Your task to perform on an android device: What's the news this week? Image 0: 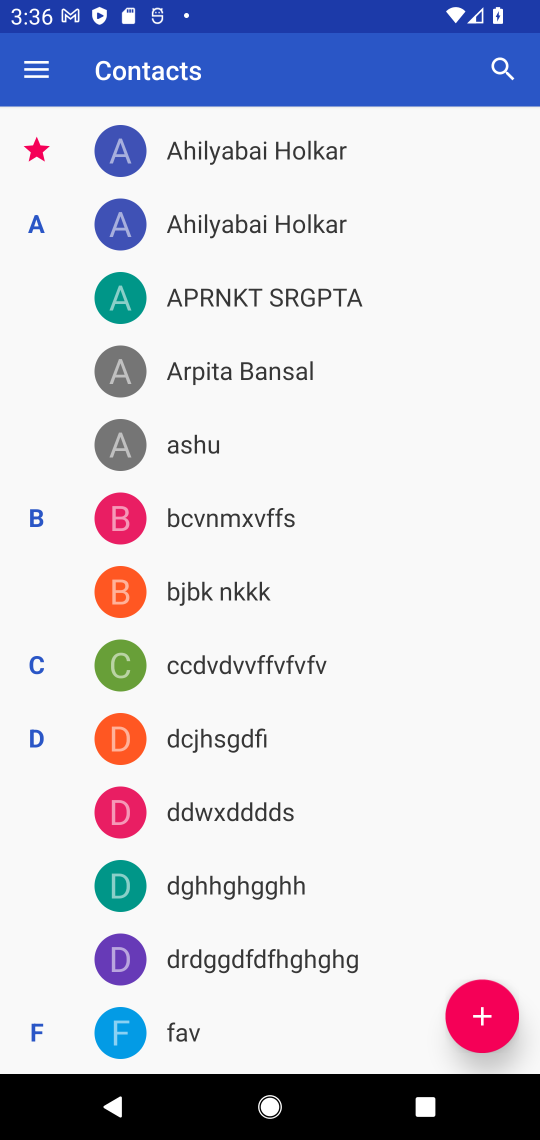
Step 0: press home button
Your task to perform on an android device: What's the news this week? Image 1: 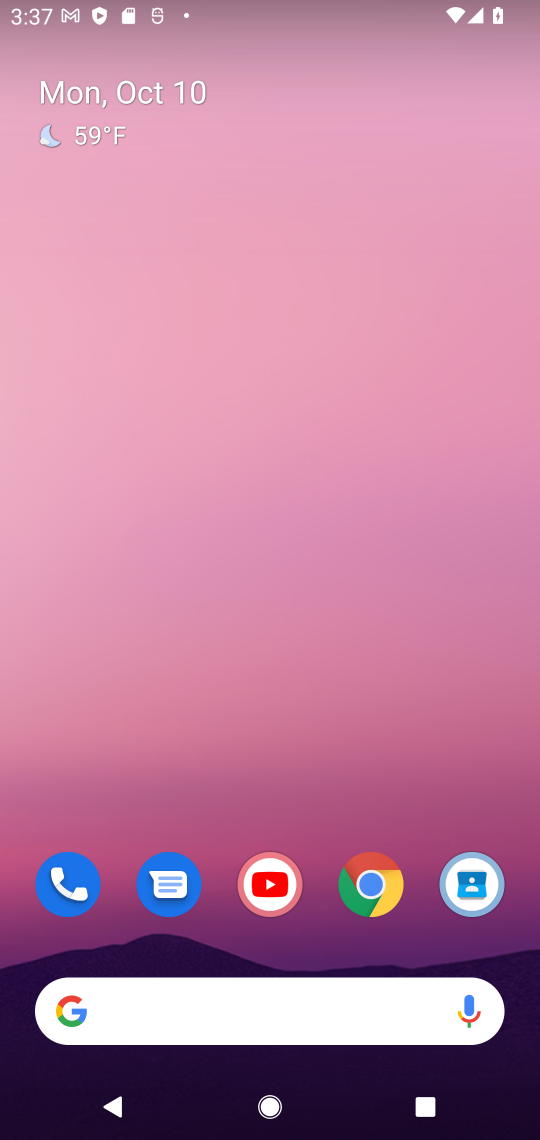
Step 1: click (259, 1024)
Your task to perform on an android device: What's the news this week? Image 2: 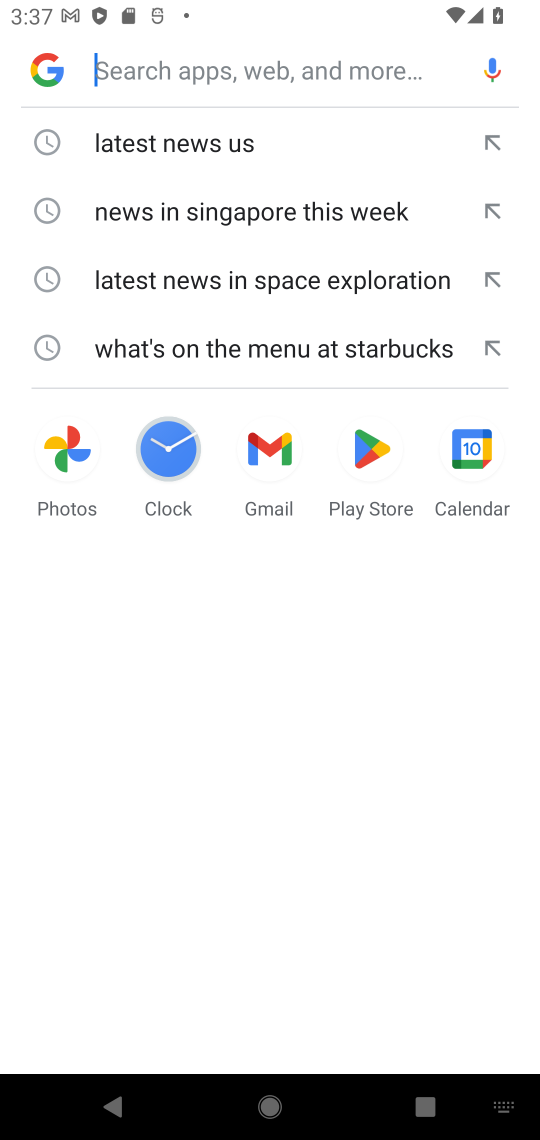
Step 2: click (244, 76)
Your task to perform on an android device: What's the news this week? Image 3: 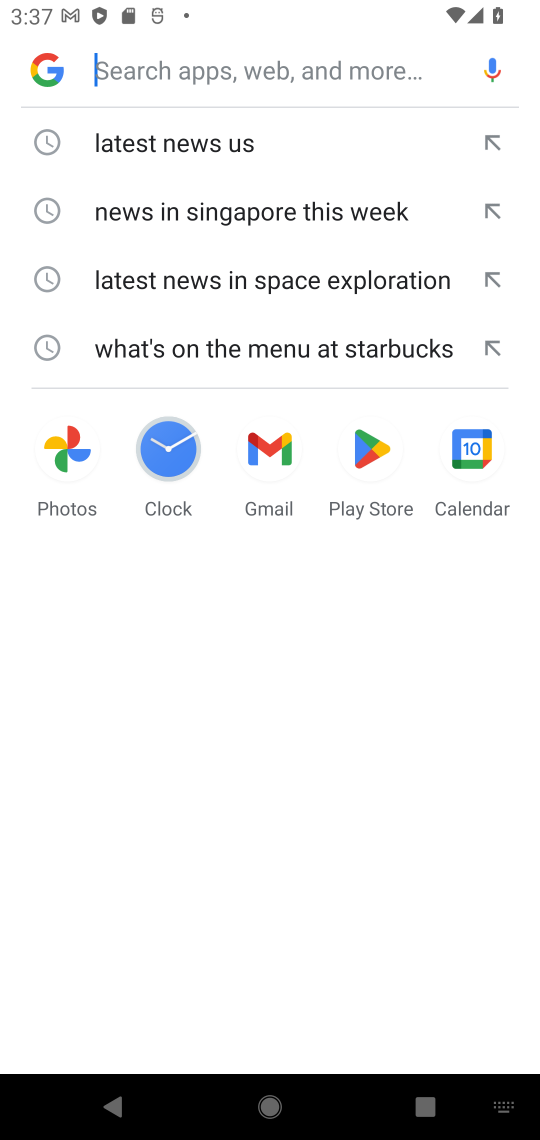
Step 3: type "What's the news this week?"
Your task to perform on an android device: What's the news this week? Image 4: 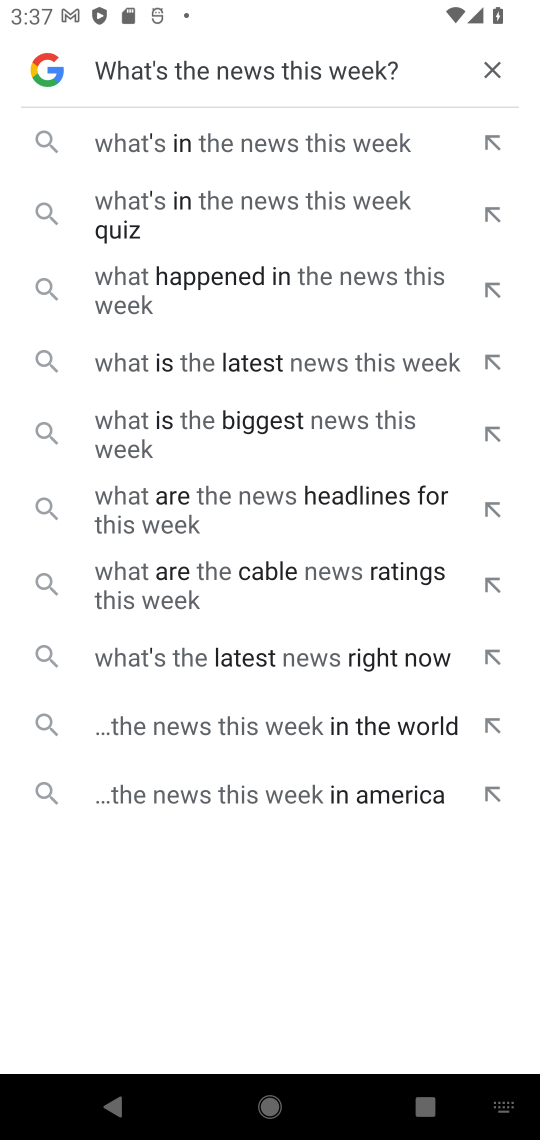
Step 4: click (246, 144)
Your task to perform on an android device: What's the news this week? Image 5: 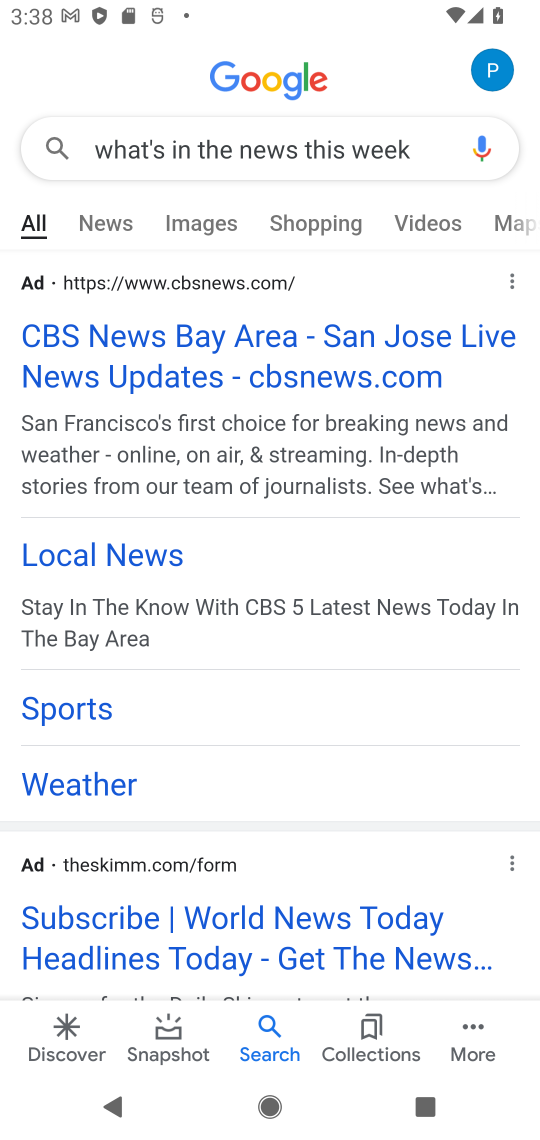
Step 5: click (194, 362)
Your task to perform on an android device: What's the news this week? Image 6: 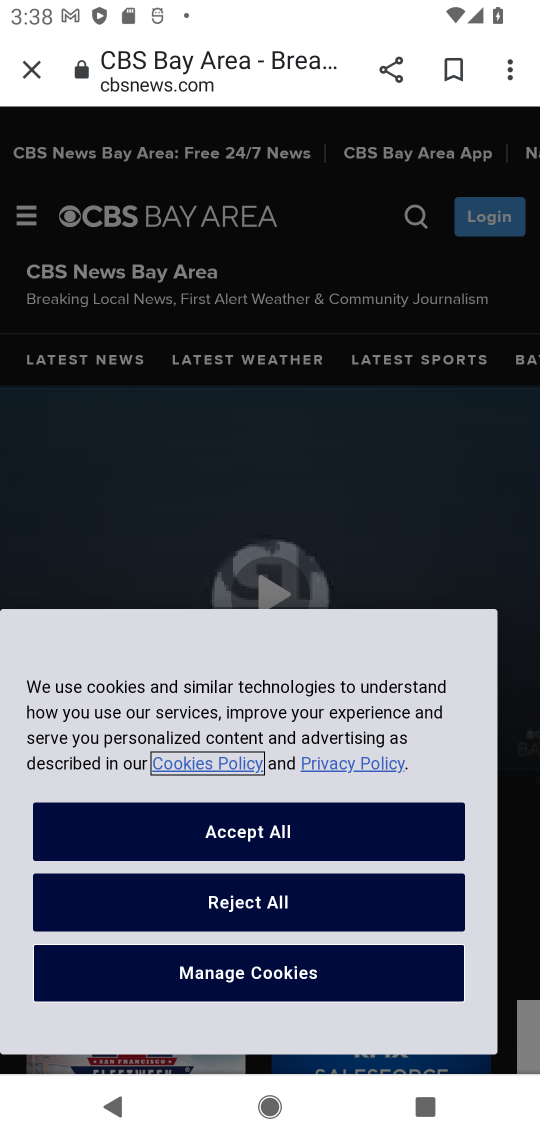
Step 6: task complete